Your task to perform on an android device: toggle wifi Image 0: 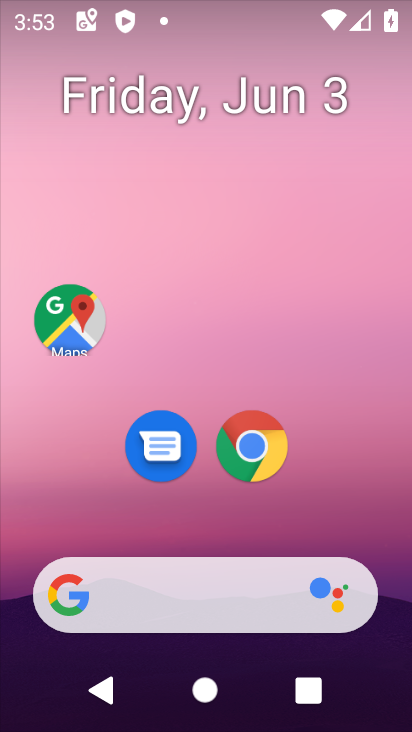
Step 0: task complete